Your task to perform on an android device: toggle notifications settings in the gmail app Image 0: 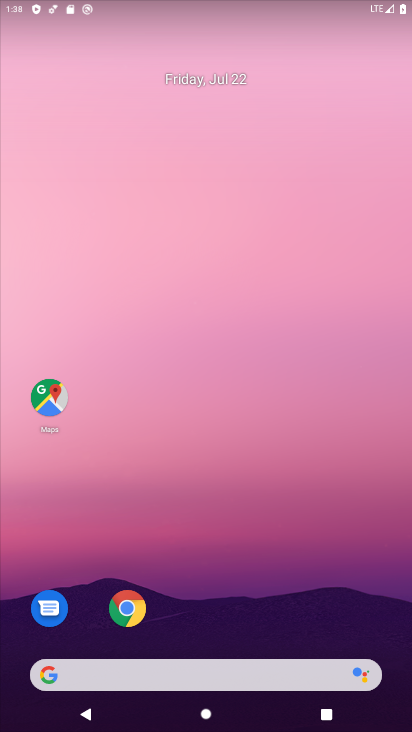
Step 0: drag from (396, 690) to (321, 155)
Your task to perform on an android device: toggle notifications settings in the gmail app Image 1: 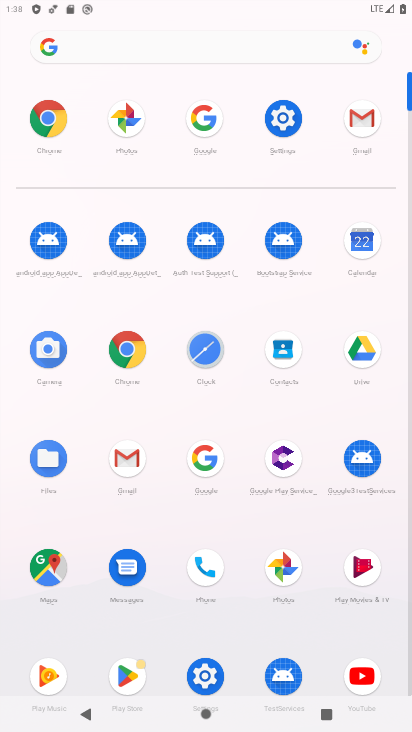
Step 1: click (123, 458)
Your task to perform on an android device: toggle notifications settings in the gmail app Image 2: 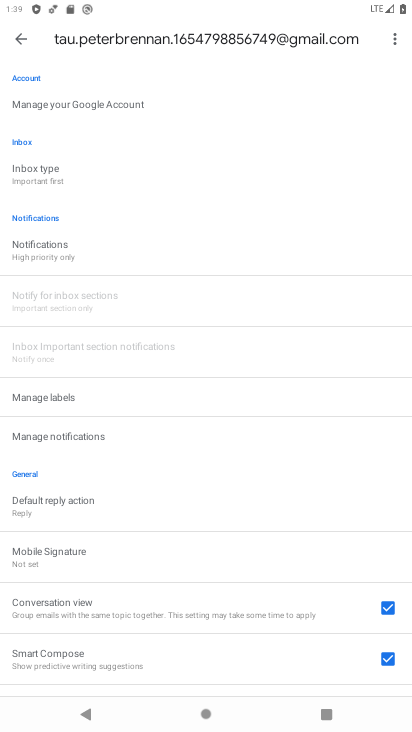
Step 2: drag from (234, 589) to (214, 232)
Your task to perform on an android device: toggle notifications settings in the gmail app Image 3: 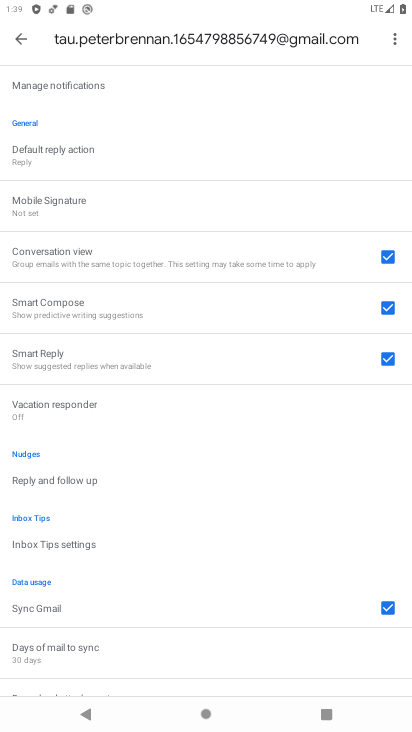
Step 3: drag from (225, 516) to (234, 321)
Your task to perform on an android device: toggle notifications settings in the gmail app Image 4: 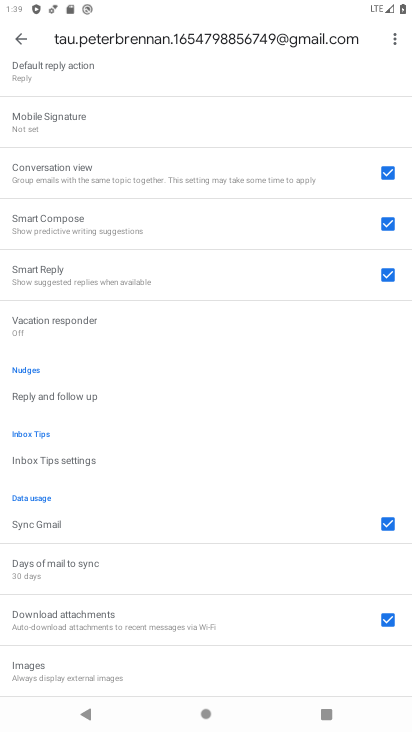
Step 4: drag from (259, 309) to (262, 627)
Your task to perform on an android device: toggle notifications settings in the gmail app Image 5: 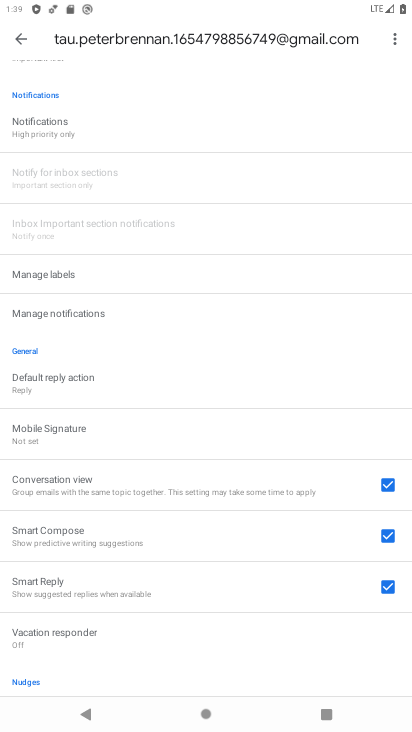
Step 5: drag from (287, 514) to (284, 664)
Your task to perform on an android device: toggle notifications settings in the gmail app Image 6: 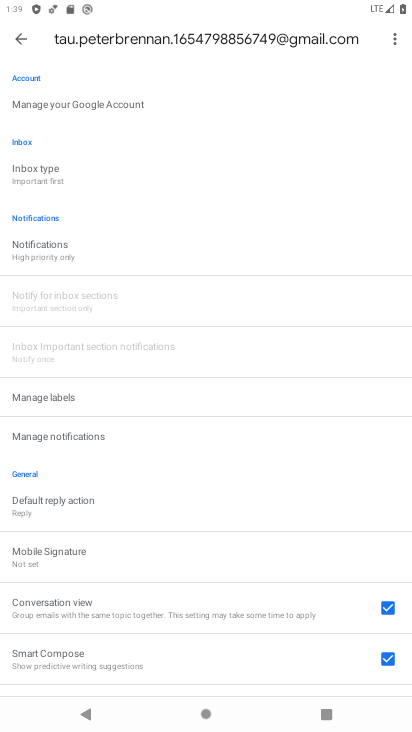
Step 6: drag from (244, 181) to (275, 608)
Your task to perform on an android device: toggle notifications settings in the gmail app Image 7: 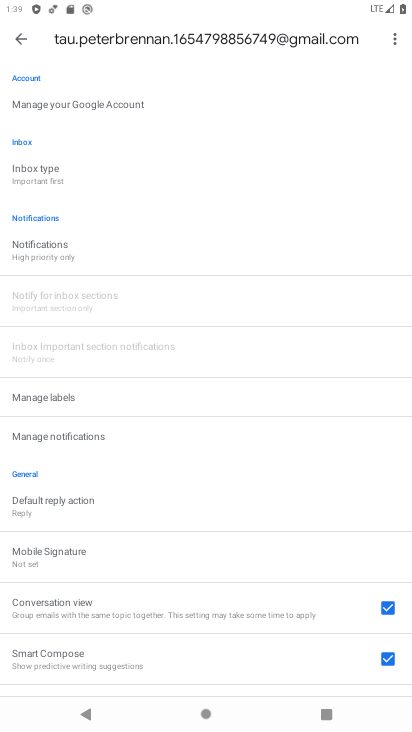
Step 7: drag from (258, 622) to (268, 278)
Your task to perform on an android device: toggle notifications settings in the gmail app Image 8: 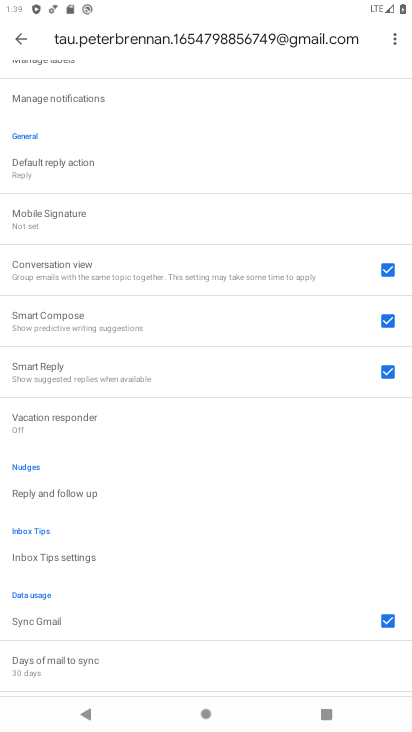
Step 8: drag from (261, 150) to (227, 621)
Your task to perform on an android device: toggle notifications settings in the gmail app Image 9: 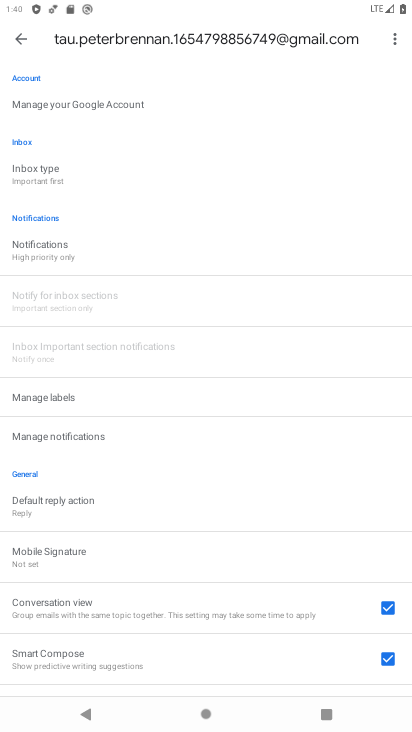
Step 9: click (38, 246)
Your task to perform on an android device: toggle notifications settings in the gmail app Image 10: 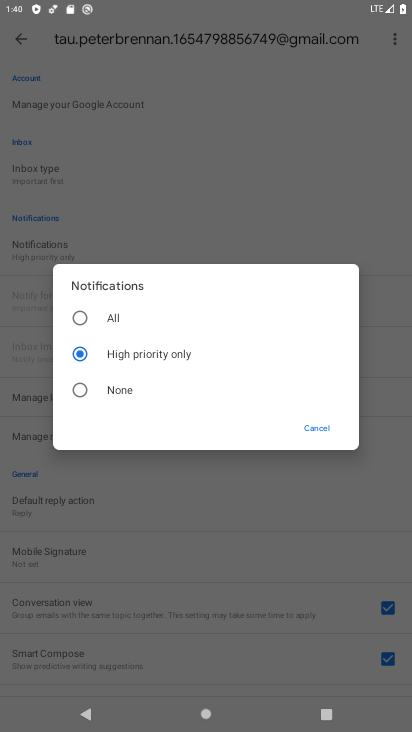
Step 10: click (75, 324)
Your task to perform on an android device: toggle notifications settings in the gmail app Image 11: 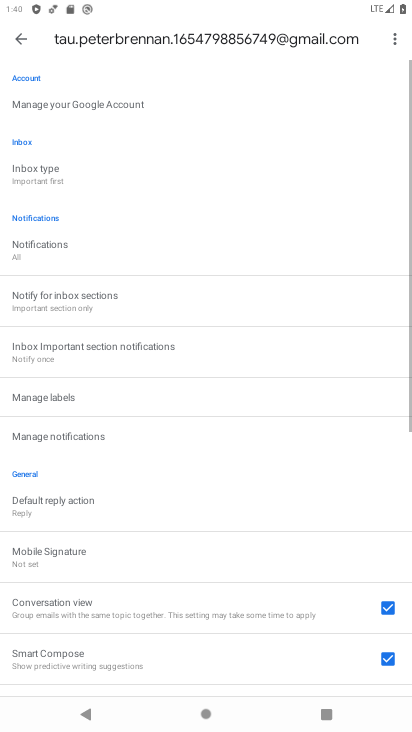
Step 11: task complete